Your task to perform on an android device: toggle show notifications on the lock screen Image 0: 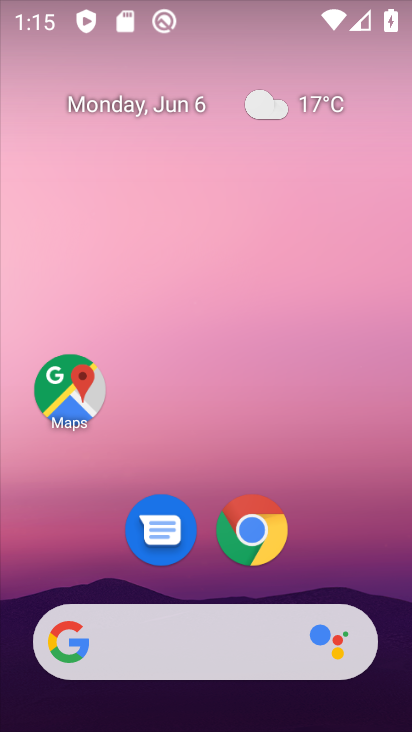
Step 0: drag from (310, 475) to (309, 217)
Your task to perform on an android device: toggle show notifications on the lock screen Image 1: 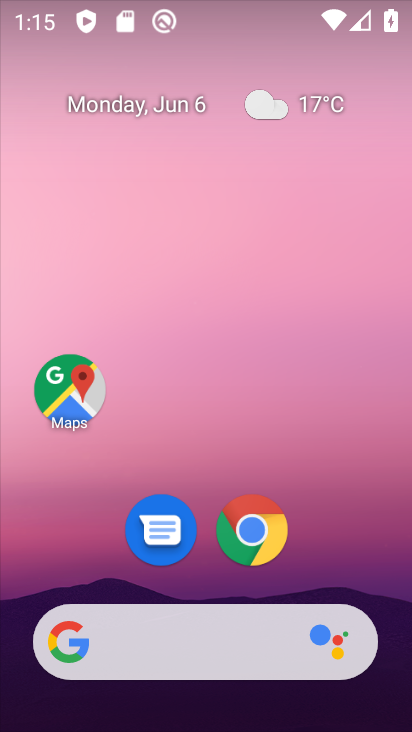
Step 1: drag from (233, 531) to (231, 212)
Your task to perform on an android device: toggle show notifications on the lock screen Image 2: 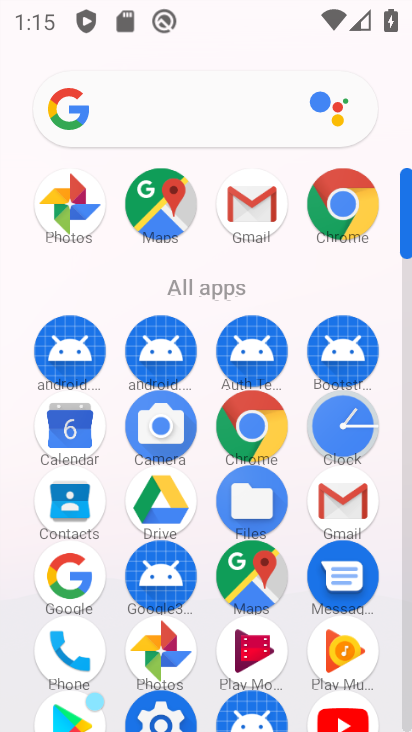
Step 2: drag from (198, 626) to (208, 377)
Your task to perform on an android device: toggle show notifications on the lock screen Image 3: 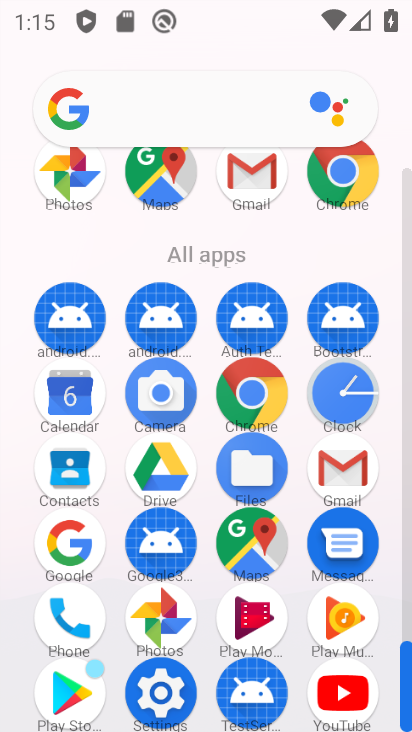
Step 3: click (148, 677)
Your task to perform on an android device: toggle show notifications on the lock screen Image 4: 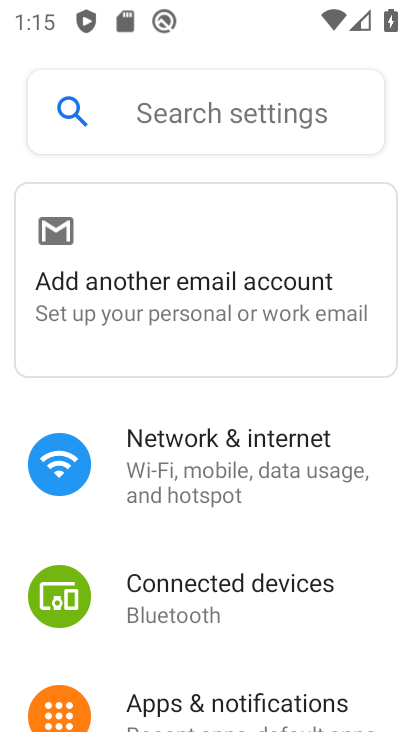
Step 4: click (179, 685)
Your task to perform on an android device: toggle show notifications on the lock screen Image 5: 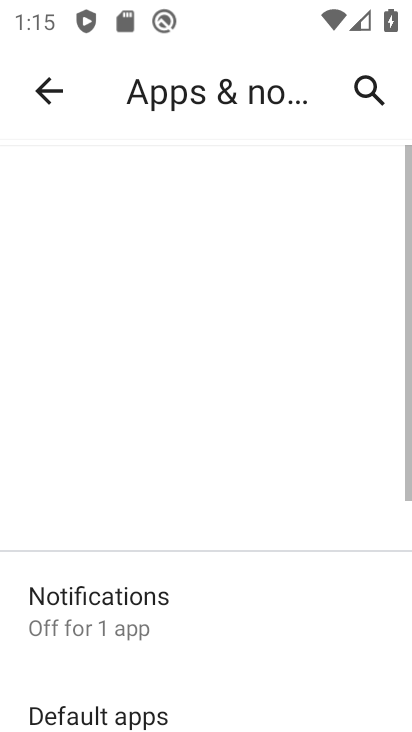
Step 5: click (138, 608)
Your task to perform on an android device: toggle show notifications on the lock screen Image 6: 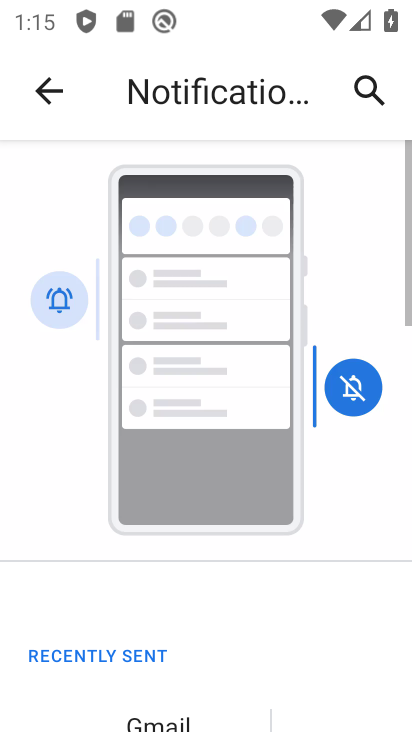
Step 6: drag from (206, 605) to (203, 272)
Your task to perform on an android device: toggle show notifications on the lock screen Image 7: 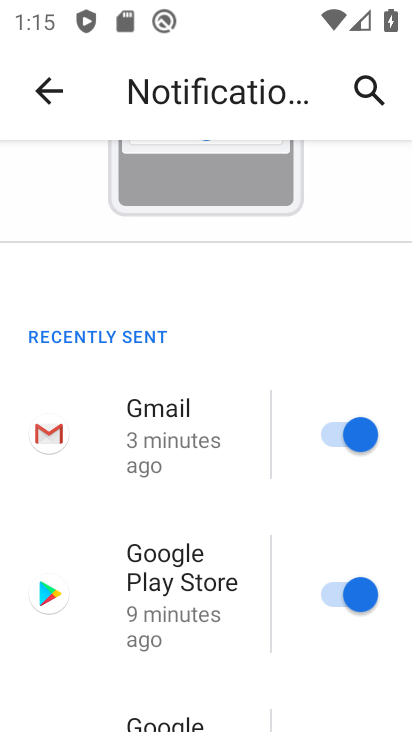
Step 7: drag from (164, 612) to (176, 247)
Your task to perform on an android device: toggle show notifications on the lock screen Image 8: 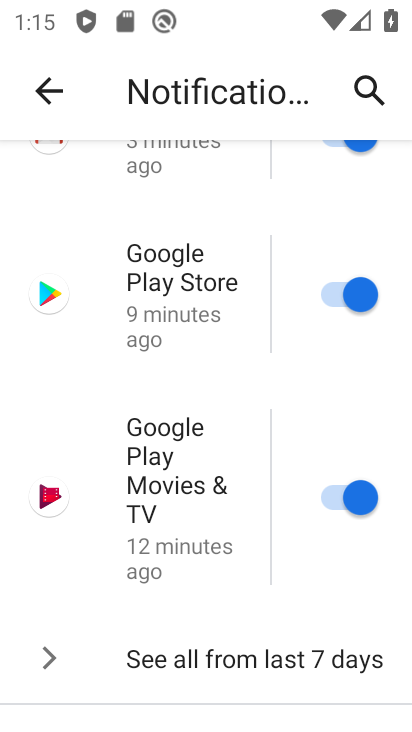
Step 8: drag from (148, 556) to (180, 218)
Your task to perform on an android device: toggle show notifications on the lock screen Image 9: 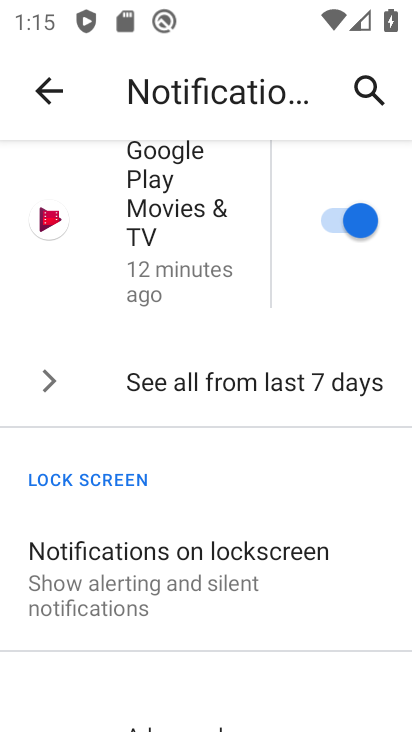
Step 9: click (134, 560)
Your task to perform on an android device: toggle show notifications on the lock screen Image 10: 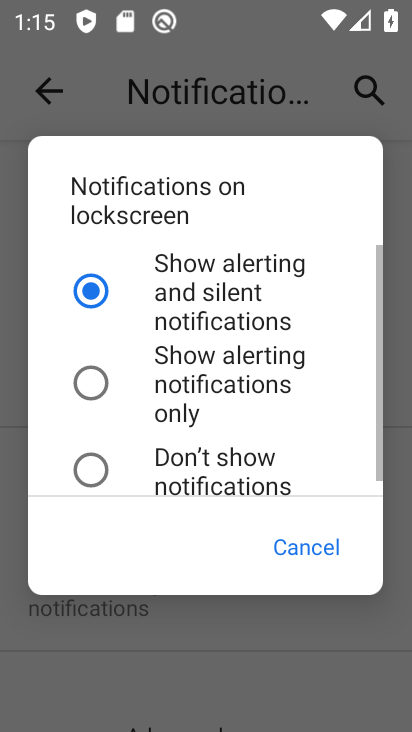
Step 10: click (147, 448)
Your task to perform on an android device: toggle show notifications on the lock screen Image 11: 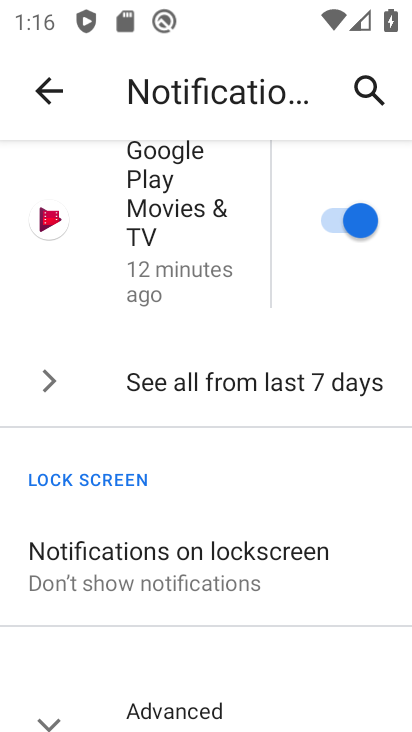
Step 11: task complete